Your task to perform on an android device: Open Google Chrome Image 0: 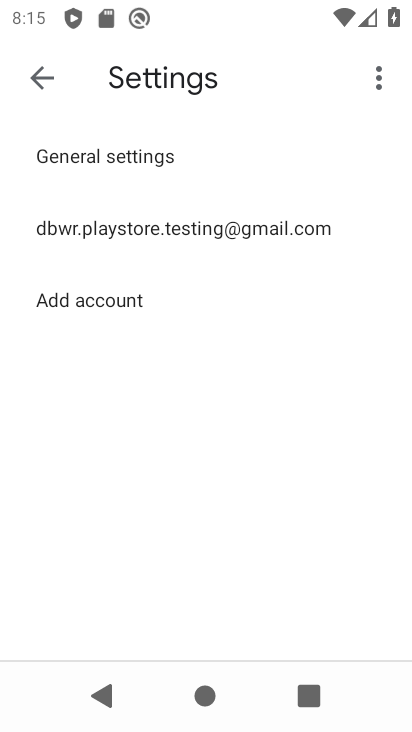
Step 0: press home button
Your task to perform on an android device: Open Google Chrome Image 1: 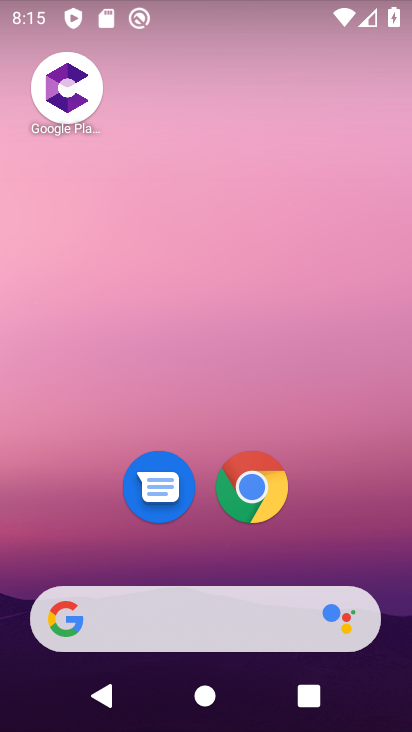
Step 1: drag from (300, 330) to (310, 54)
Your task to perform on an android device: Open Google Chrome Image 2: 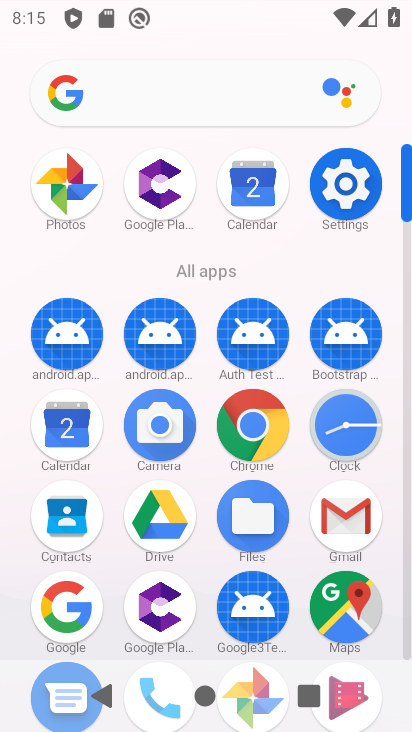
Step 2: click (243, 431)
Your task to perform on an android device: Open Google Chrome Image 3: 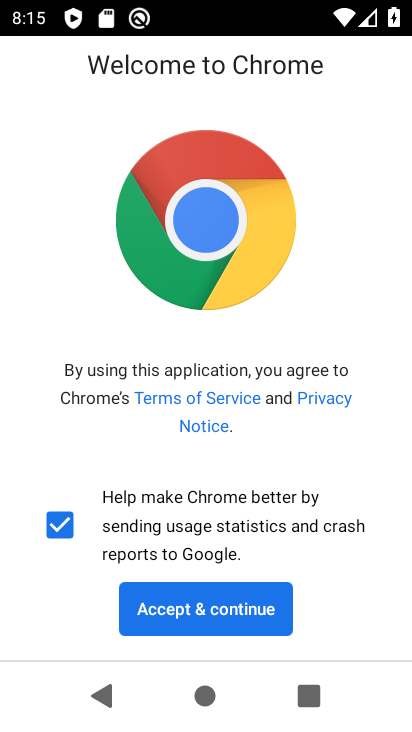
Step 3: click (281, 609)
Your task to perform on an android device: Open Google Chrome Image 4: 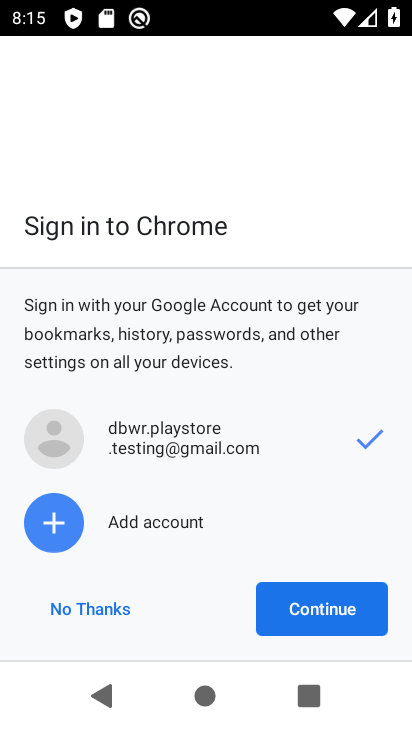
Step 4: click (100, 613)
Your task to perform on an android device: Open Google Chrome Image 5: 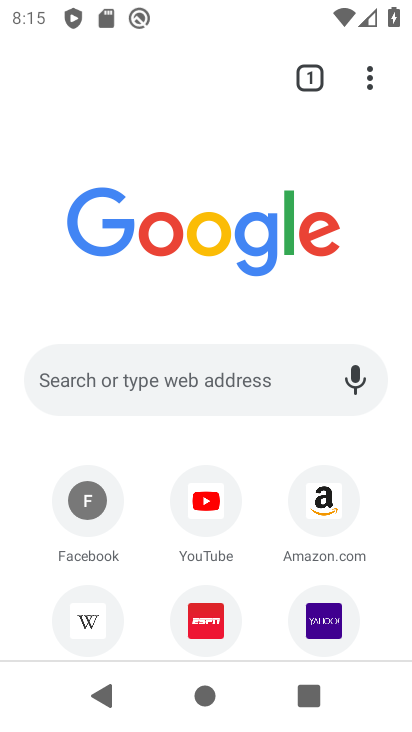
Step 5: task complete